Your task to perform on an android device: Go to CNN.com Image 0: 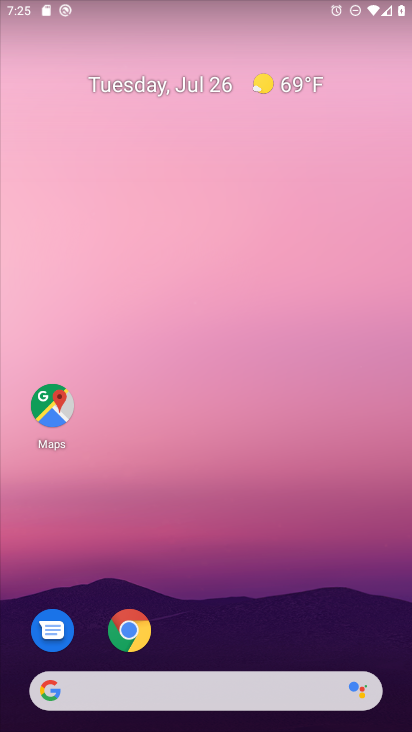
Step 0: drag from (215, 635) to (317, 60)
Your task to perform on an android device: Go to CNN.com Image 1: 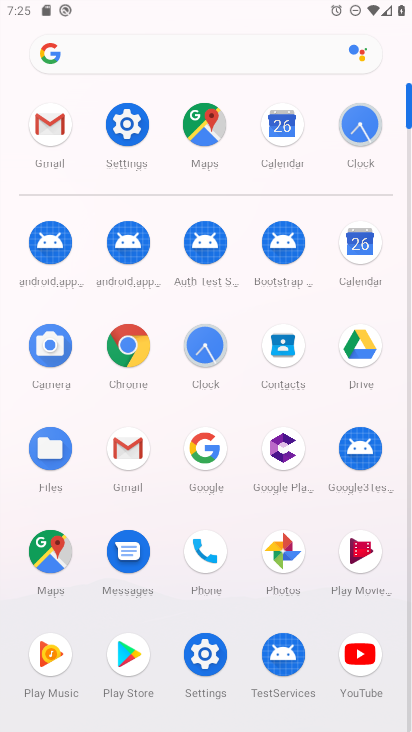
Step 1: click (133, 350)
Your task to perform on an android device: Go to CNN.com Image 2: 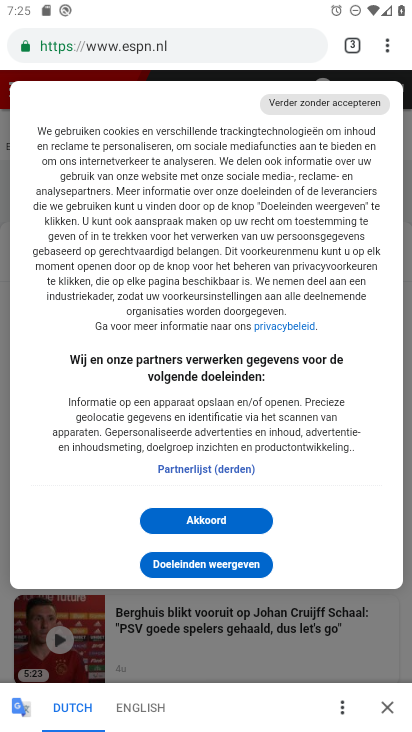
Step 2: click (353, 47)
Your task to perform on an android device: Go to CNN.com Image 3: 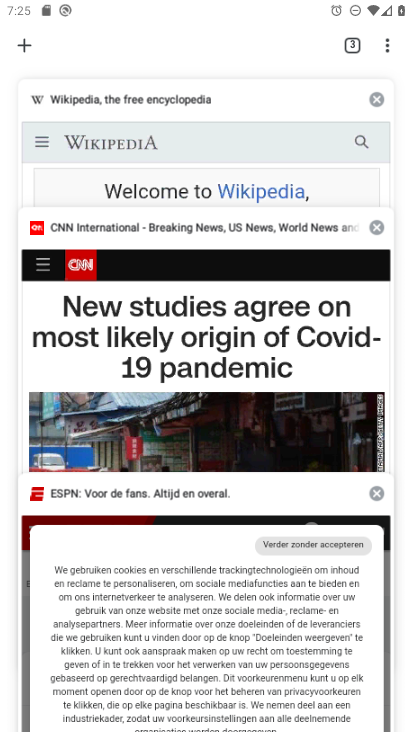
Step 3: click (22, 51)
Your task to perform on an android device: Go to CNN.com Image 4: 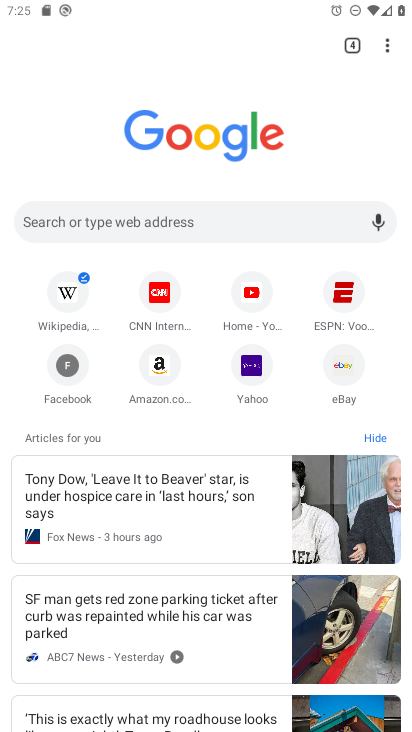
Step 4: click (151, 223)
Your task to perform on an android device: Go to CNN.com Image 5: 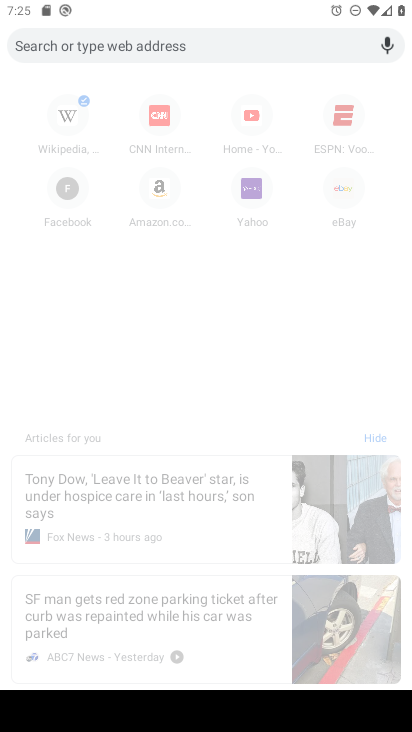
Step 5: type "CNN.com"
Your task to perform on an android device: Go to CNN.com Image 6: 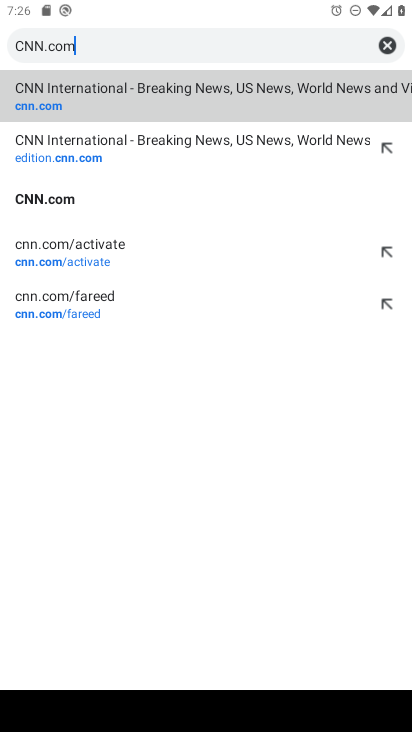
Step 6: click (121, 92)
Your task to perform on an android device: Go to CNN.com Image 7: 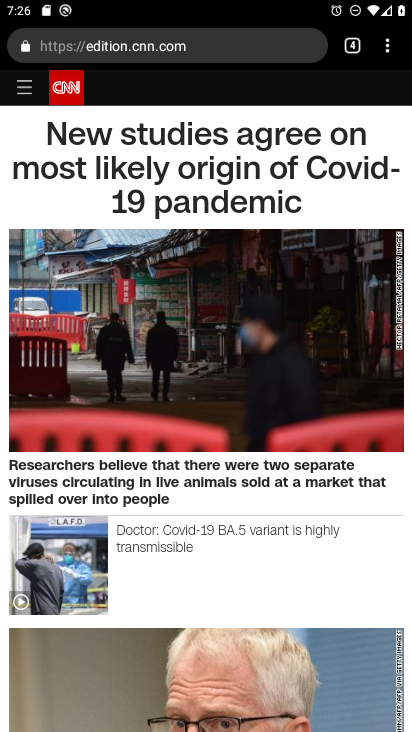
Step 7: task complete